Your task to perform on an android device: change notifications settings Image 0: 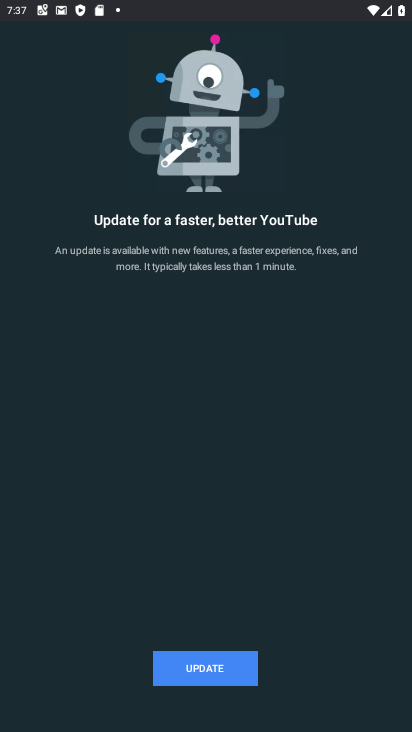
Step 0: press home button
Your task to perform on an android device: change notifications settings Image 1: 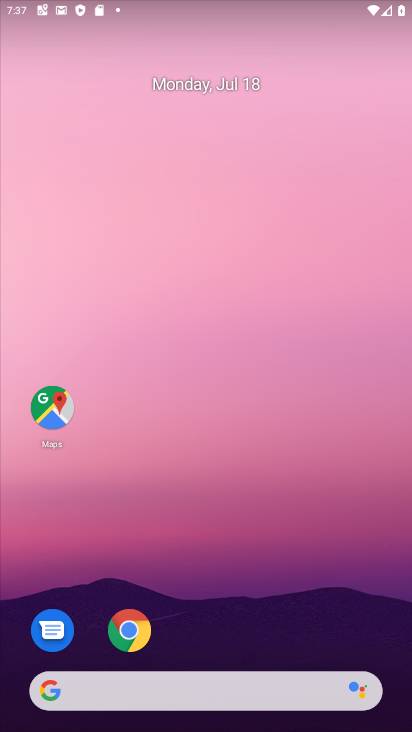
Step 1: drag from (295, 663) to (301, 254)
Your task to perform on an android device: change notifications settings Image 2: 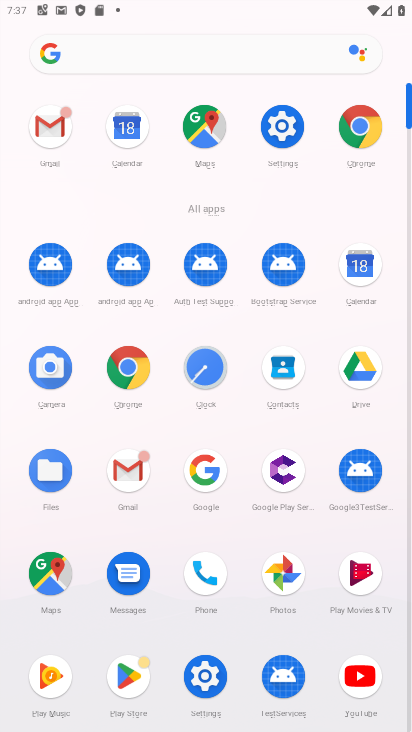
Step 2: click (274, 123)
Your task to perform on an android device: change notifications settings Image 3: 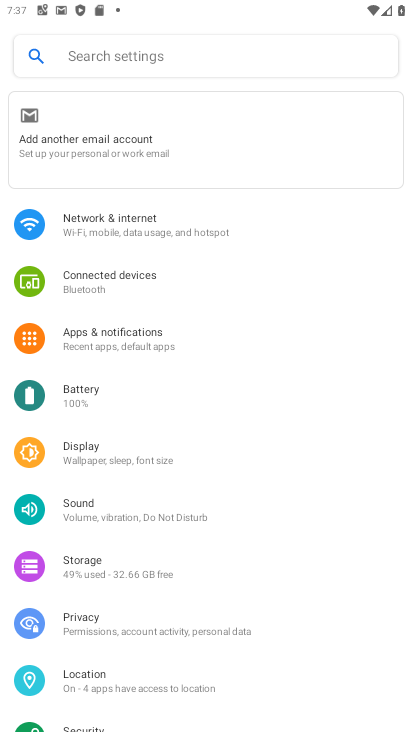
Step 3: click (108, 331)
Your task to perform on an android device: change notifications settings Image 4: 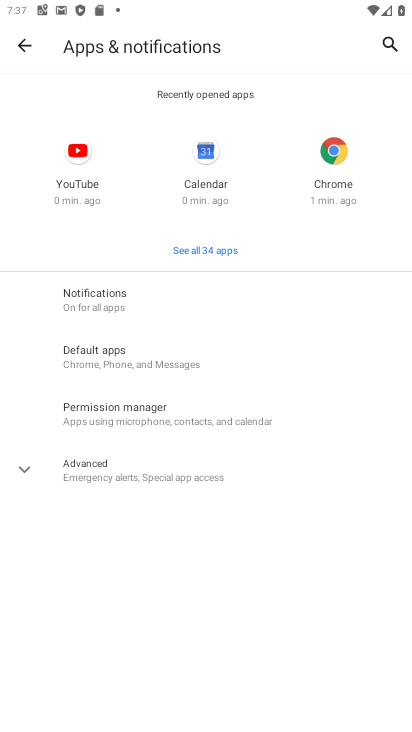
Step 4: click (129, 306)
Your task to perform on an android device: change notifications settings Image 5: 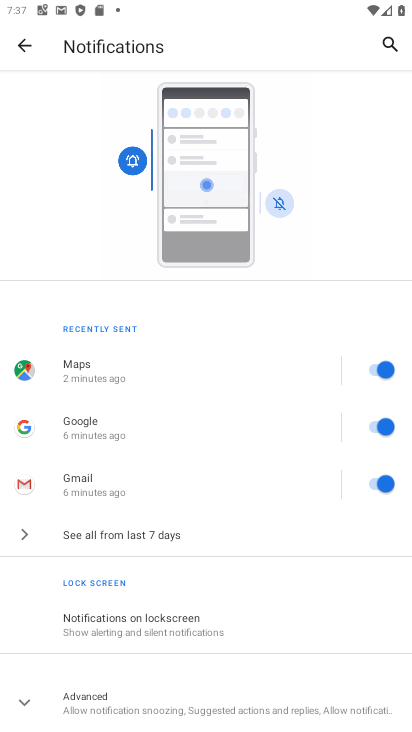
Step 5: click (169, 538)
Your task to perform on an android device: change notifications settings Image 6: 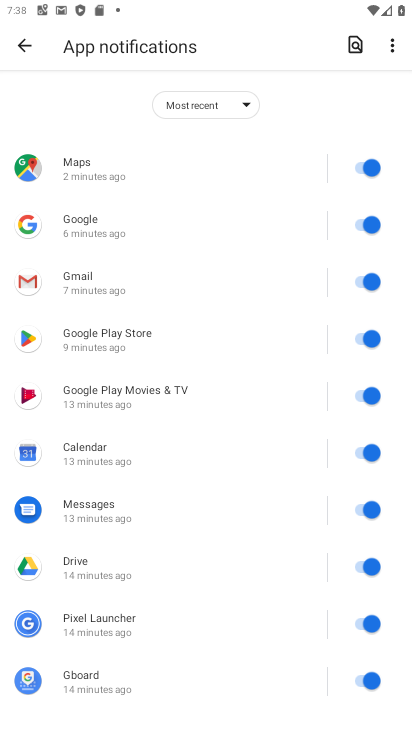
Step 6: drag from (358, 162) to (373, 224)
Your task to perform on an android device: change notifications settings Image 7: 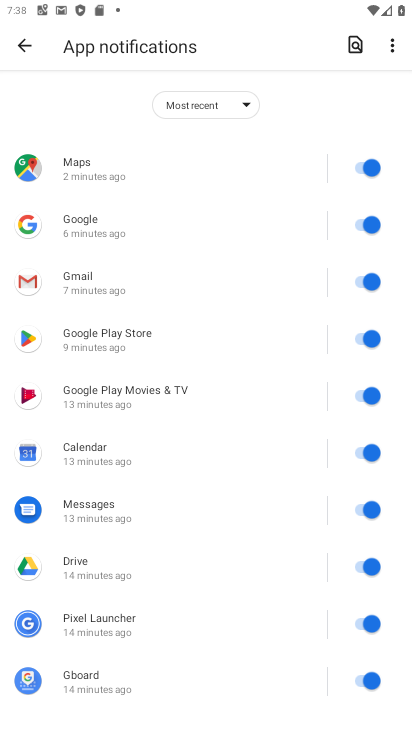
Step 7: click (360, 288)
Your task to perform on an android device: change notifications settings Image 8: 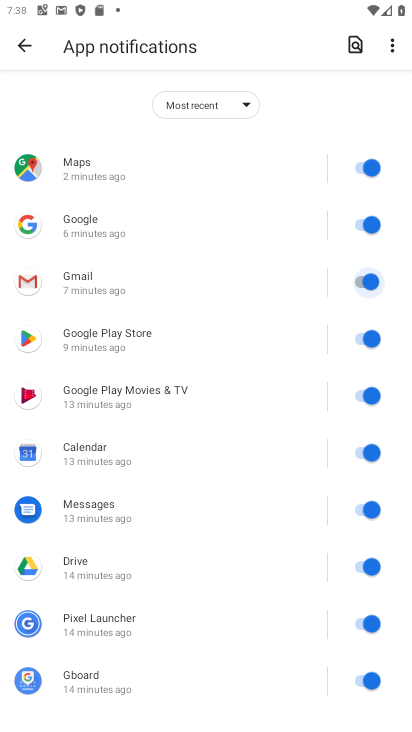
Step 8: click (364, 338)
Your task to perform on an android device: change notifications settings Image 9: 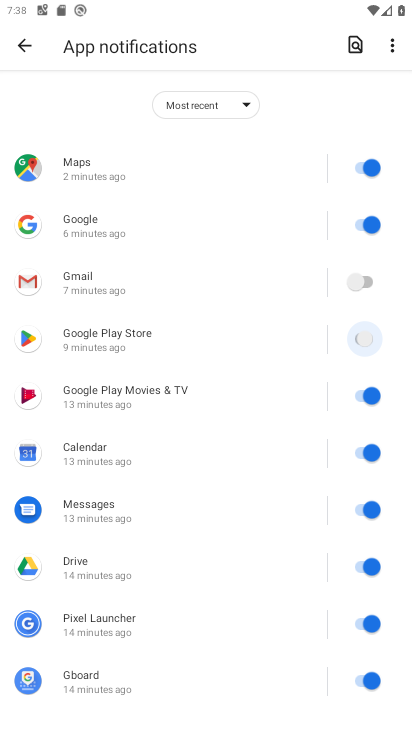
Step 9: click (366, 385)
Your task to perform on an android device: change notifications settings Image 10: 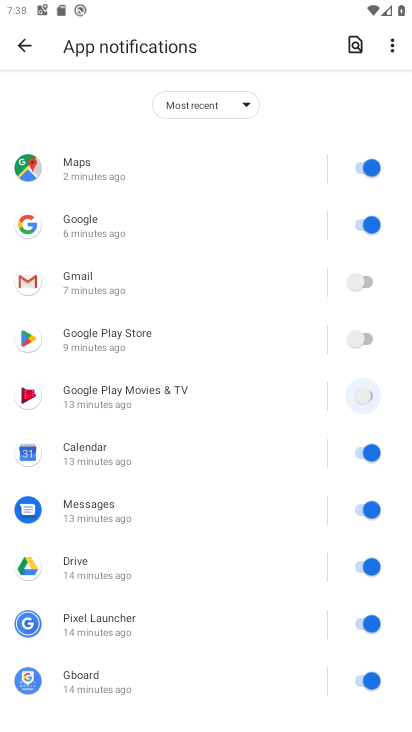
Step 10: click (368, 455)
Your task to perform on an android device: change notifications settings Image 11: 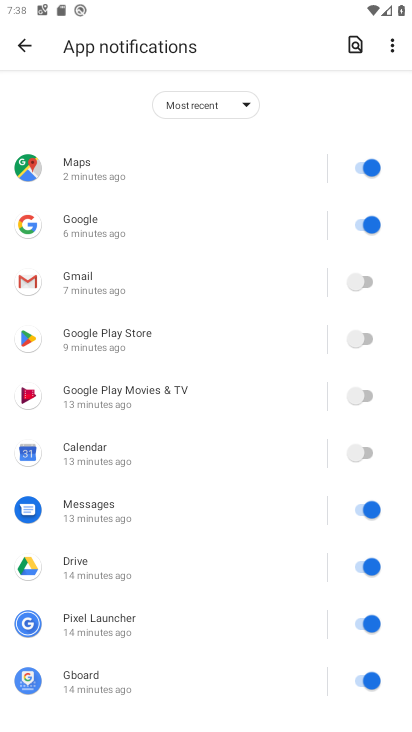
Step 11: click (366, 489)
Your task to perform on an android device: change notifications settings Image 12: 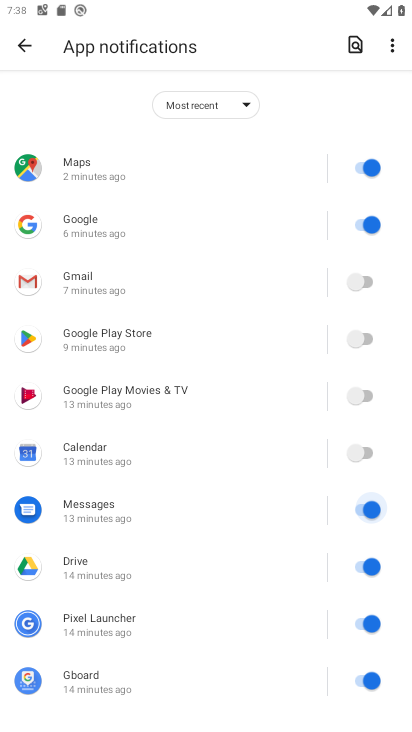
Step 12: click (366, 495)
Your task to perform on an android device: change notifications settings Image 13: 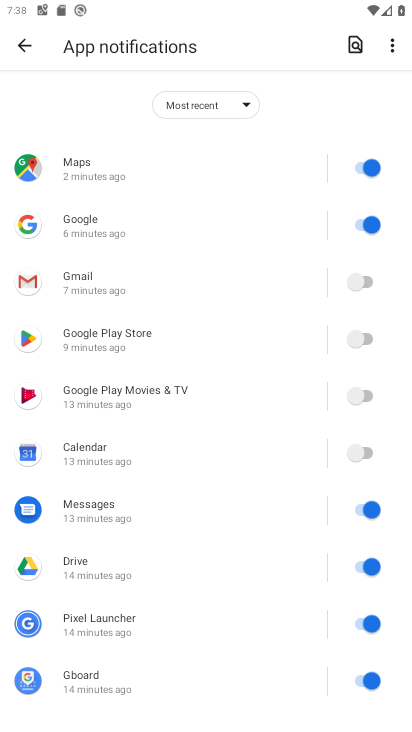
Step 13: click (370, 557)
Your task to perform on an android device: change notifications settings Image 14: 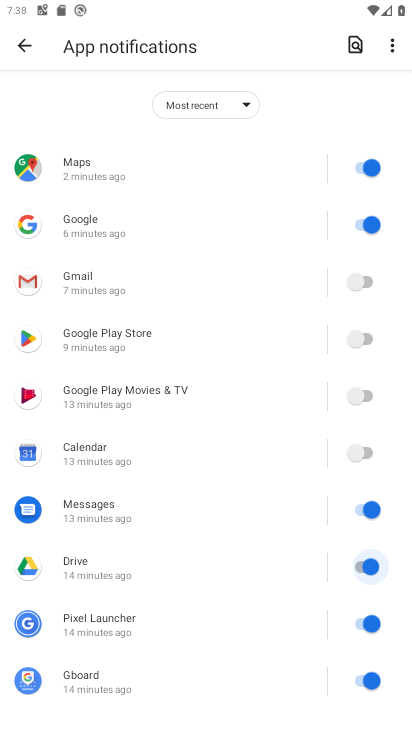
Step 14: click (364, 629)
Your task to perform on an android device: change notifications settings Image 15: 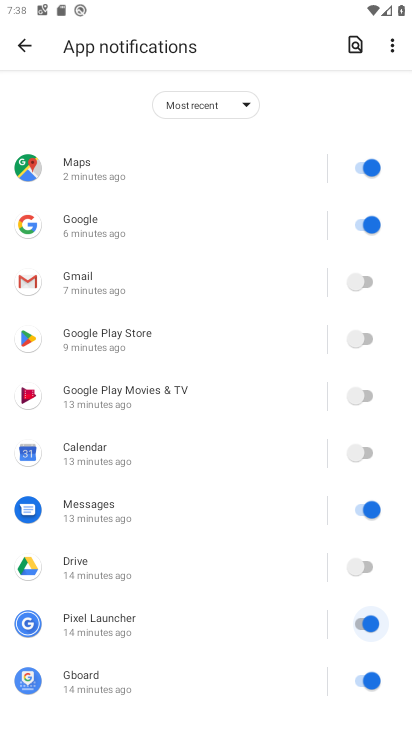
Step 15: click (370, 691)
Your task to perform on an android device: change notifications settings Image 16: 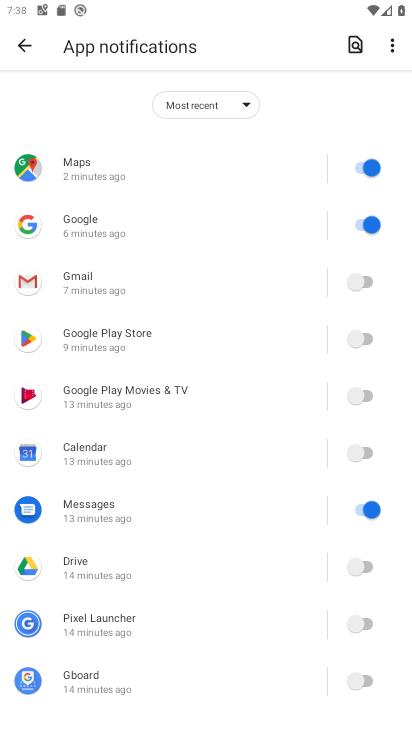
Step 16: click (362, 168)
Your task to perform on an android device: change notifications settings Image 17: 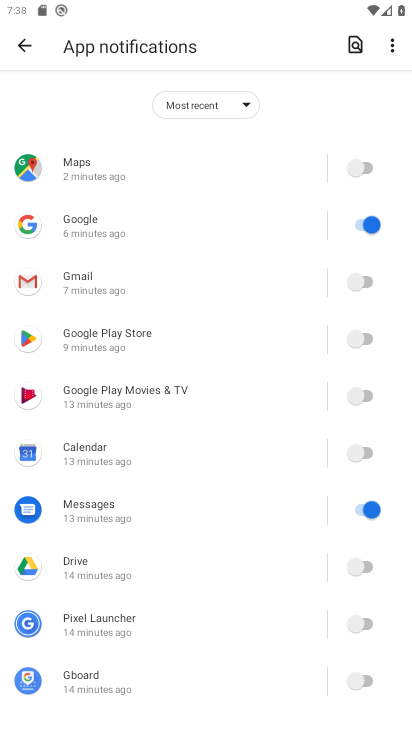
Step 17: click (359, 221)
Your task to perform on an android device: change notifications settings Image 18: 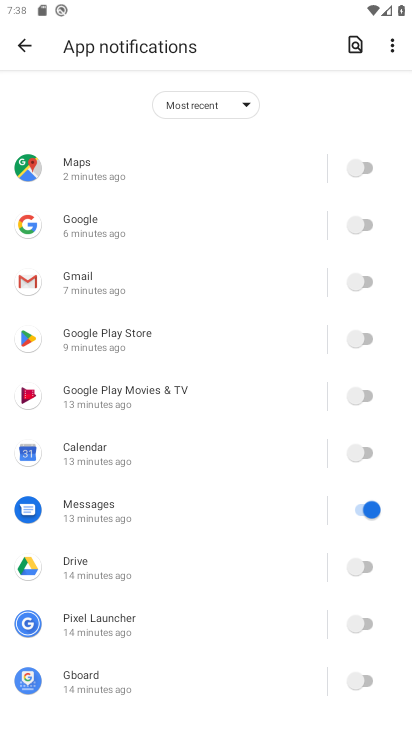
Step 18: drag from (299, 604) to (309, 188)
Your task to perform on an android device: change notifications settings Image 19: 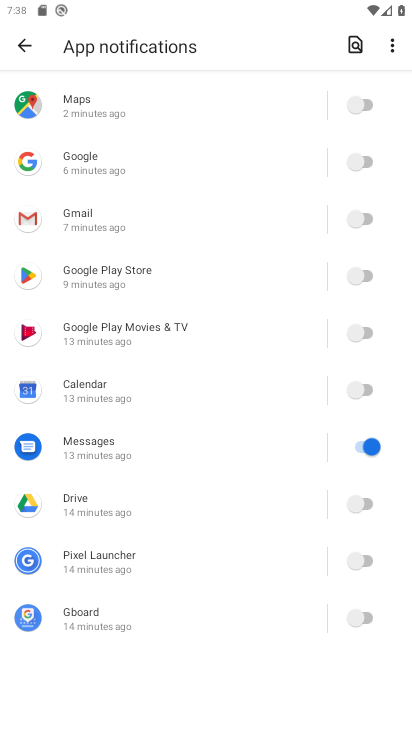
Step 19: click (369, 450)
Your task to perform on an android device: change notifications settings Image 20: 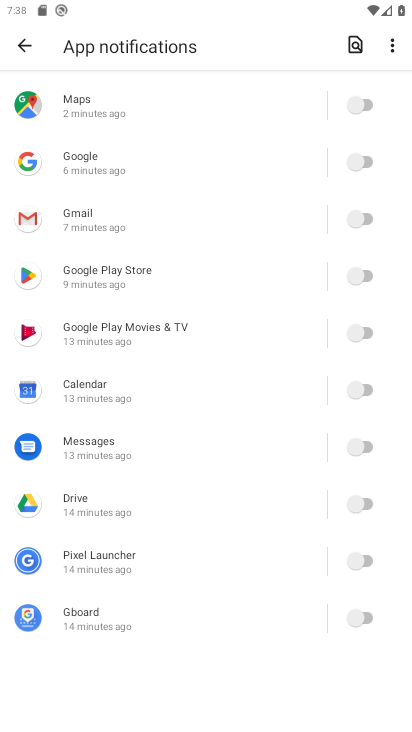
Step 20: task complete